Your task to perform on an android device: change the clock display to show seconds Image 0: 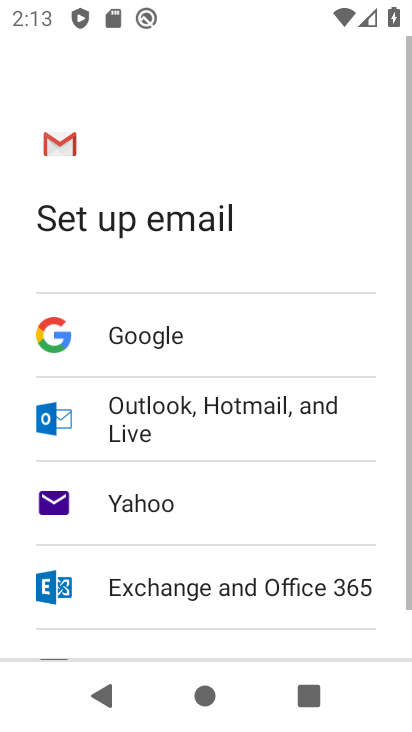
Step 0: press home button
Your task to perform on an android device: change the clock display to show seconds Image 1: 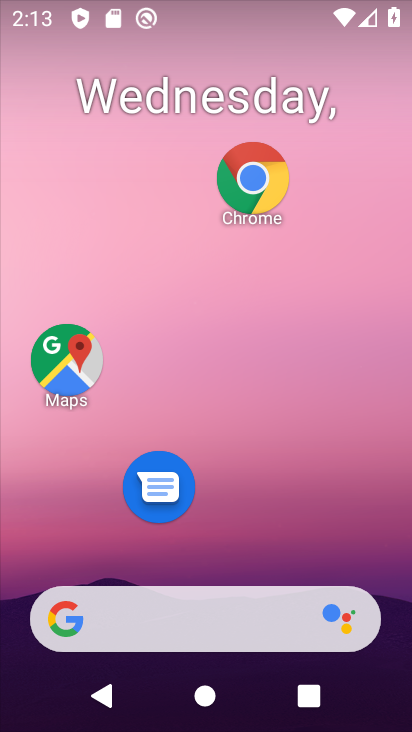
Step 1: drag from (331, 512) to (395, 7)
Your task to perform on an android device: change the clock display to show seconds Image 2: 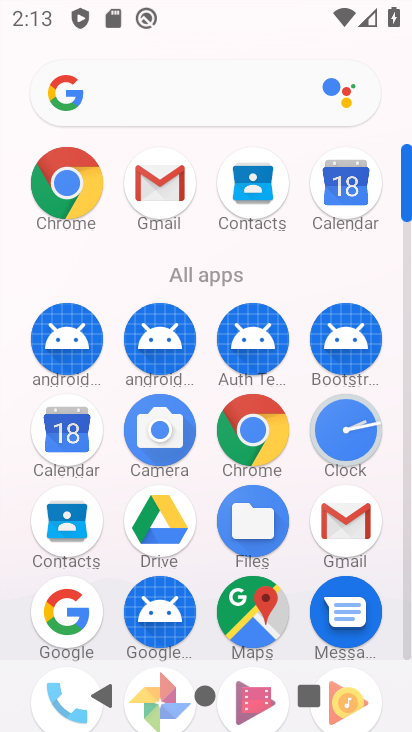
Step 2: click (338, 428)
Your task to perform on an android device: change the clock display to show seconds Image 3: 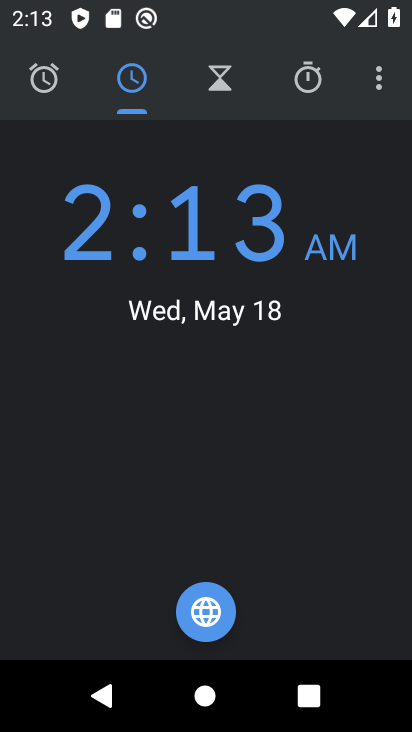
Step 3: click (362, 80)
Your task to perform on an android device: change the clock display to show seconds Image 4: 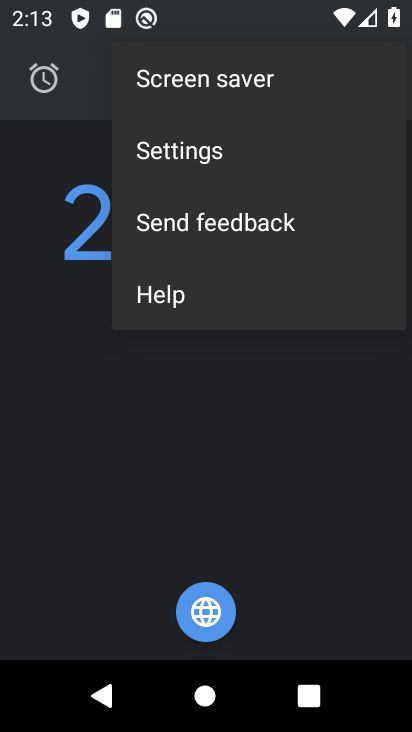
Step 4: click (287, 153)
Your task to perform on an android device: change the clock display to show seconds Image 5: 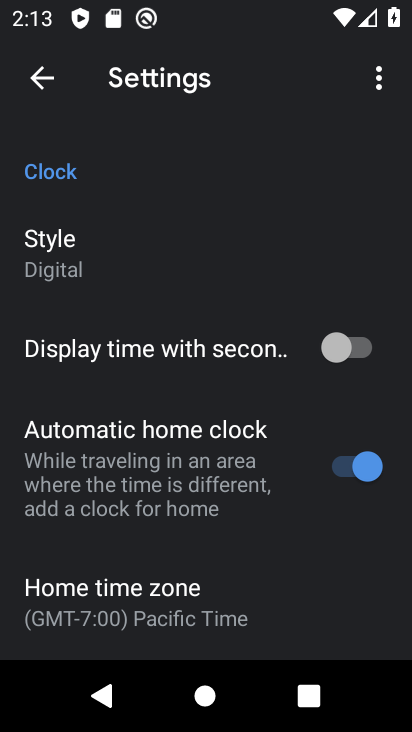
Step 5: click (363, 345)
Your task to perform on an android device: change the clock display to show seconds Image 6: 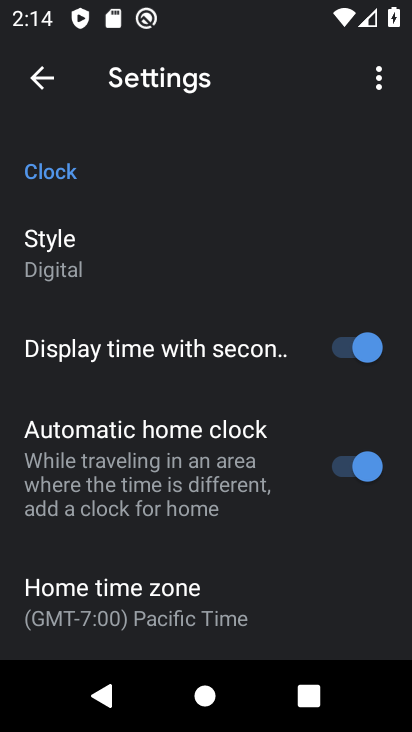
Step 6: task complete